Your task to perform on an android device: What's on my calendar today? Image 0: 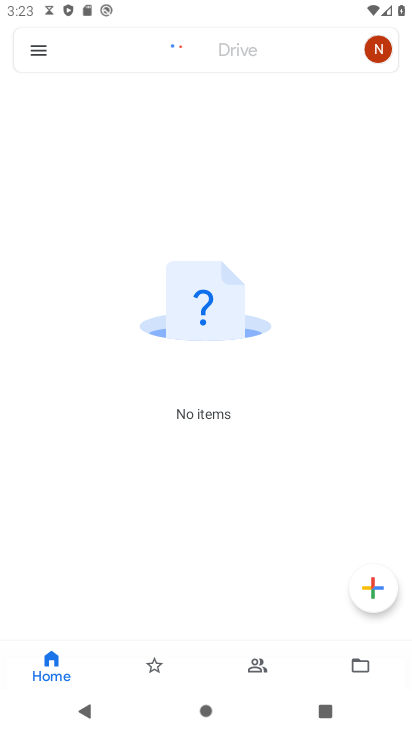
Step 0: press home button
Your task to perform on an android device: What's on my calendar today? Image 1: 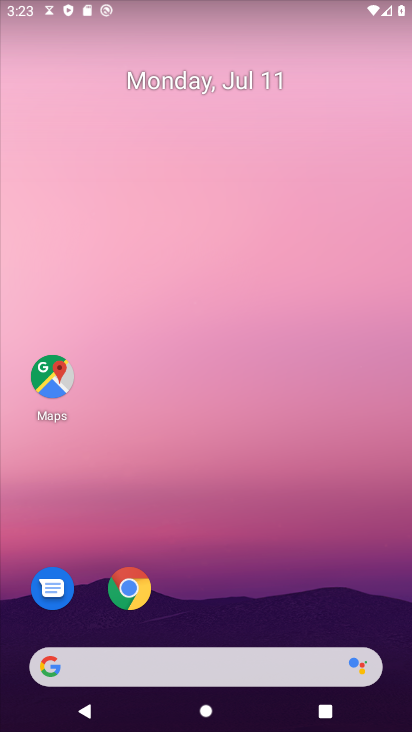
Step 1: drag from (217, 623) to (406, 439)
Your task to perform on an android device: What's on my calendar today? Image 2: 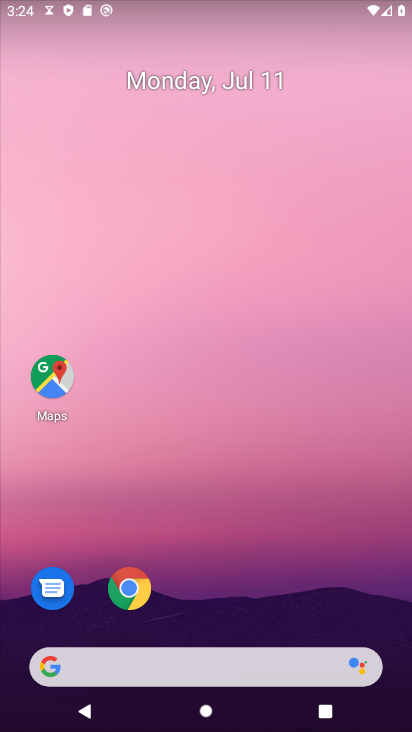
Step 2: drag from (246, 587) to (199, 62)
Your task to perform on an android device: What's on my calendar today? Image 3: 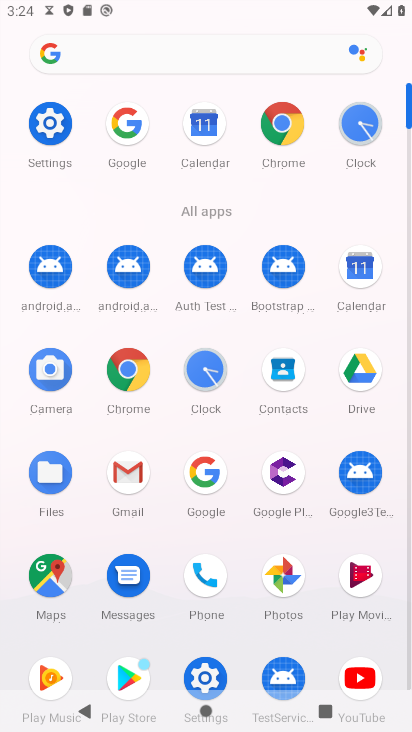
Step 3: click (354, 276)
Your task to perform on an android device: What's on my calendar today? Image 4: 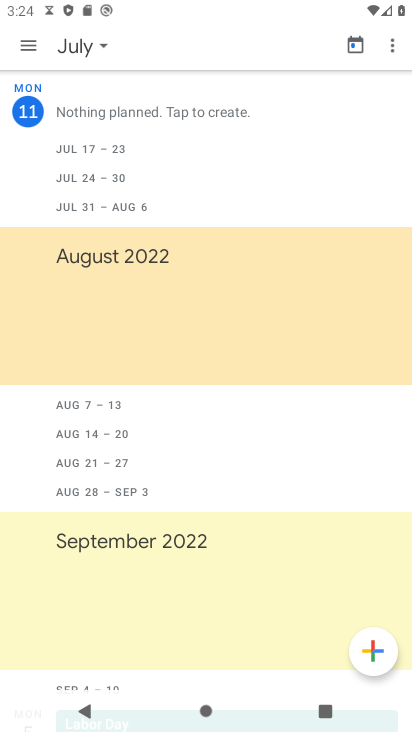
Step 4: click (66, 45)
Your task to perform on an android device: What's on my calendar today? Image 5: 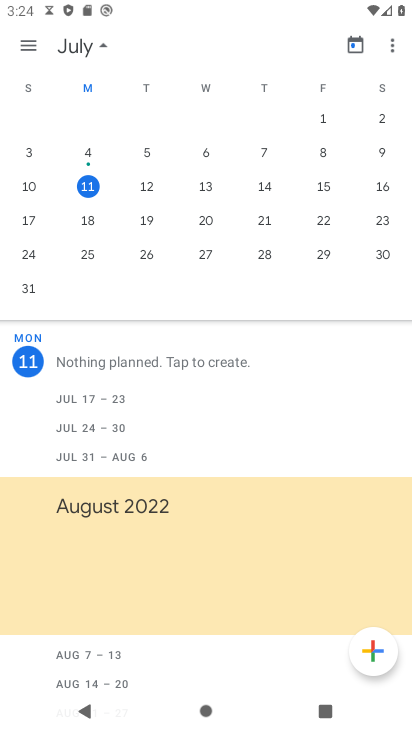
Step 5: click (90, 183)
Your task to perform on an android device: What's on my calendar today? Image 6: 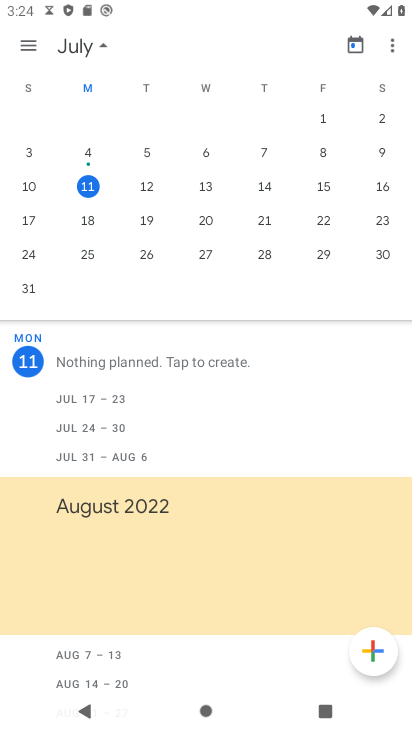
Step 6: task complete